Your task to perform on an android device: turn on translation in the chrome app Image 0: 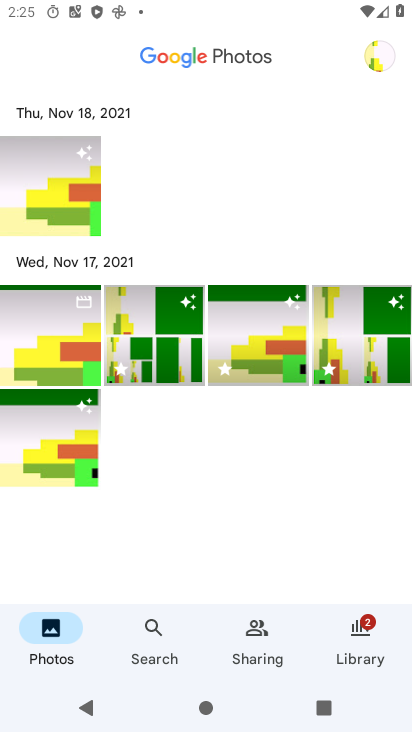
Step 0: press home button
Your task to perform on an android device: turn on translation in the chrome app Image 1: 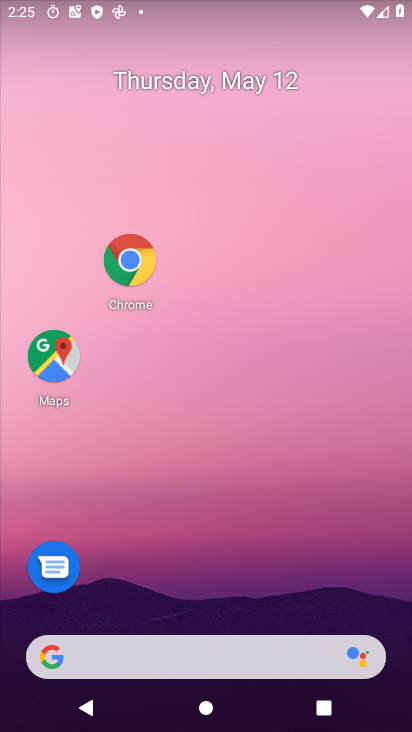
Step 1: click (129, 265)
Your task to perform on an android device: turn on translation in the chrome app Image 2: 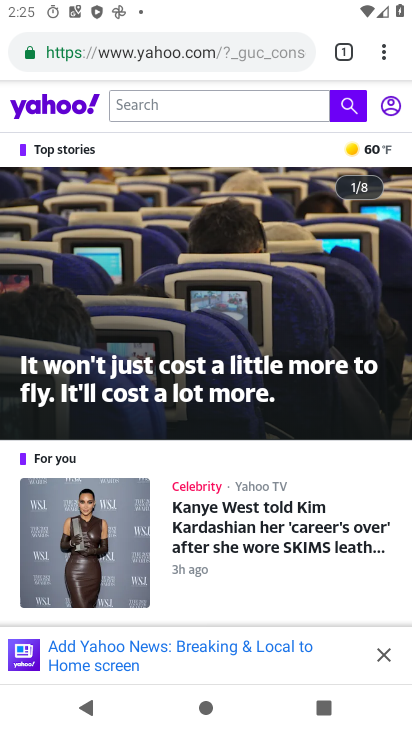
Step 2: click (385, 52)
Your task to perform on an android device: turn on translation in the chrome app Image 3: 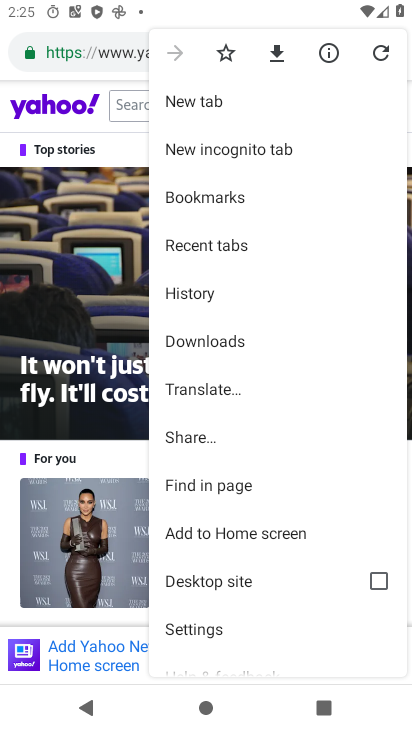
Step 3: click (205, 629)
Your task to perform on an android device: turn on translation in the chrome app Image 4: 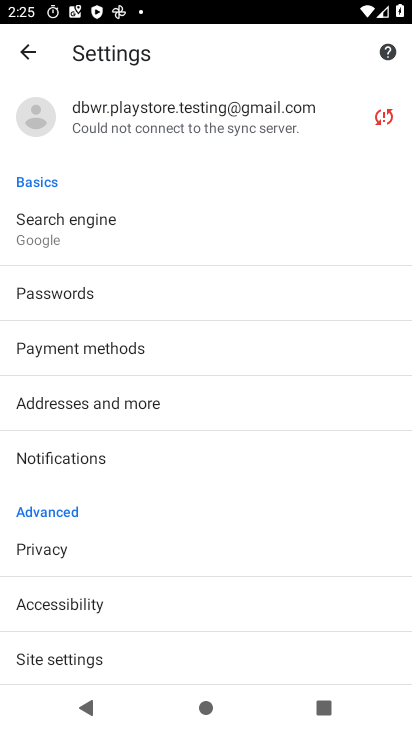
Step 4: drag from (138, 651) to (123, 344)
Your task to perform on an android device: turn on translation in the chrome app Image 5: 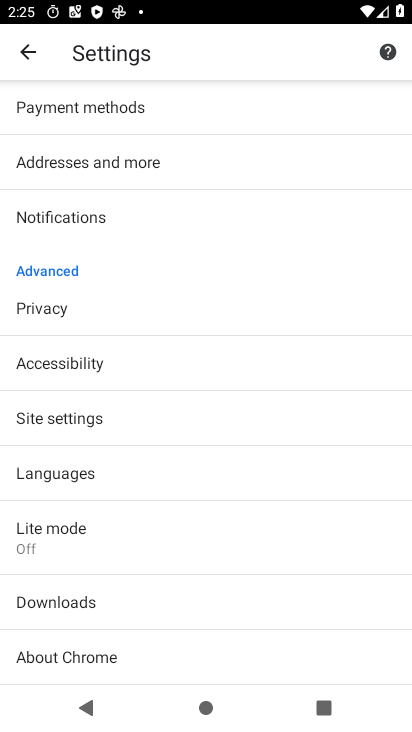
Step 5: click (53, 479)
Your task to perform on an android device: turn on translation in the chrome app Image 6: 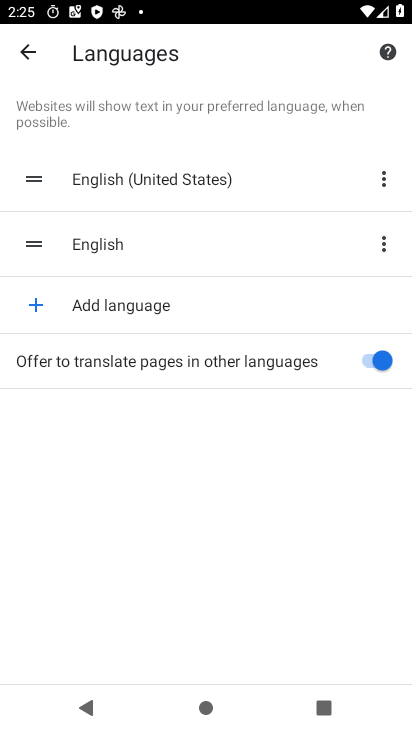
Step 6: task complete